Your task to perform on an android device: Open calendar and show me the third week of next month Image 0: 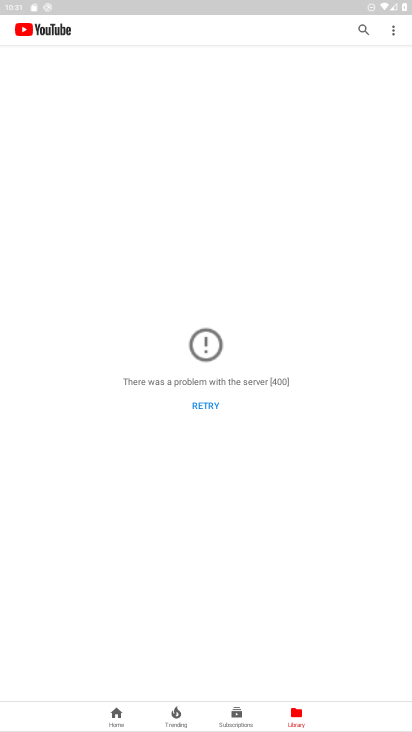
Step 0: press home button
Your task to perform on an android device: Open calendar and show me the third week of next month Image 1: 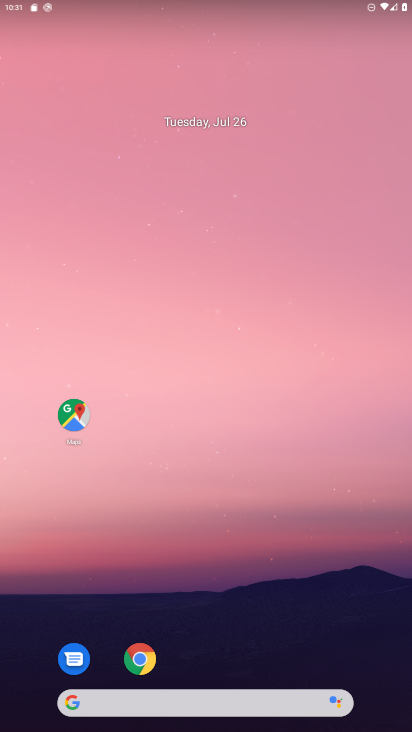
Step 1: drag from (391, 722) to (219, 26)
Your task to perform on an android device: Open calendar and show me the third week of next month Image 2: 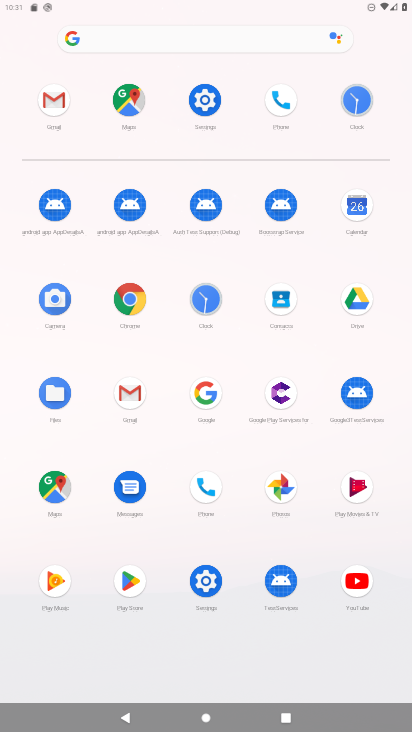
Step 2: click (213, 304)
Your task to perform on an android device: Open calendar and show me the third week of next month Image 3: 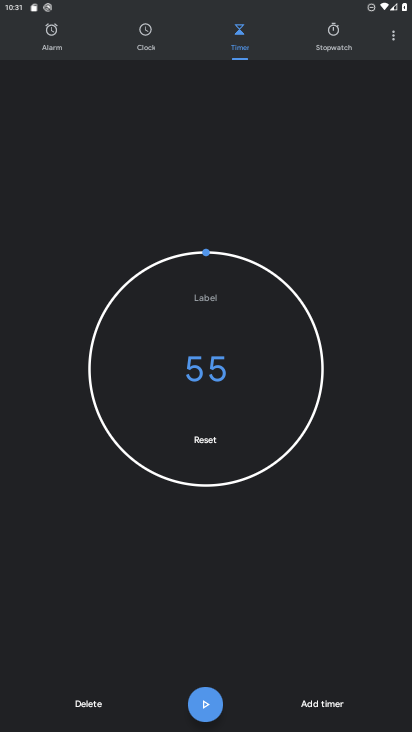
Step 3: press back button
Your task to perform on an android device: Open calendar and show me the third week of next month Image 4: 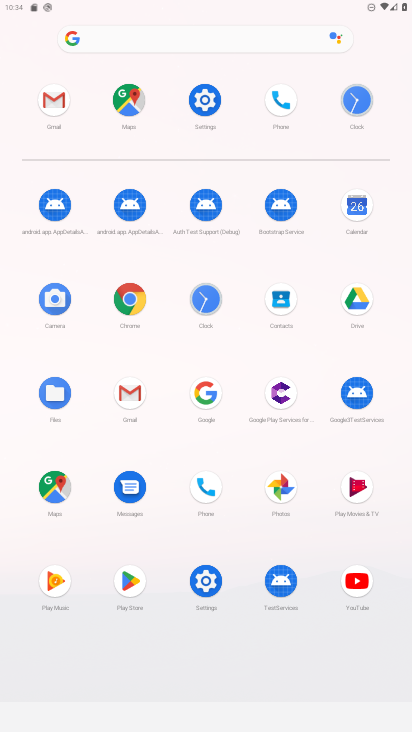
Step 4: click (352, 212)
Your task to perform on an android device: Open calendar and show me the third week of next month Image 5: 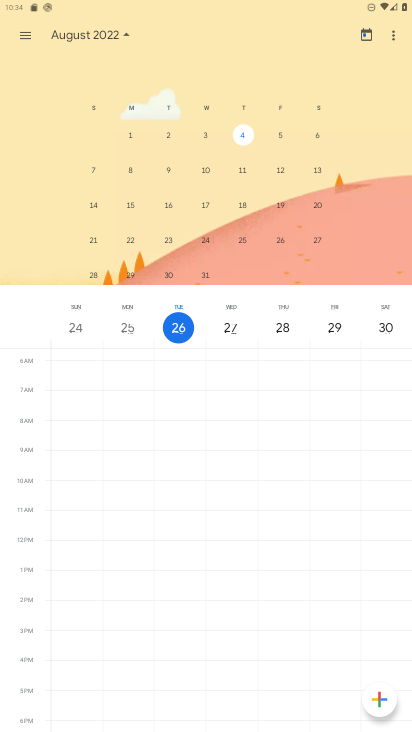
Step 5: click (208, 201)
Your task to perform on an android device: Open calendar and show me the third week of next month Image 6: 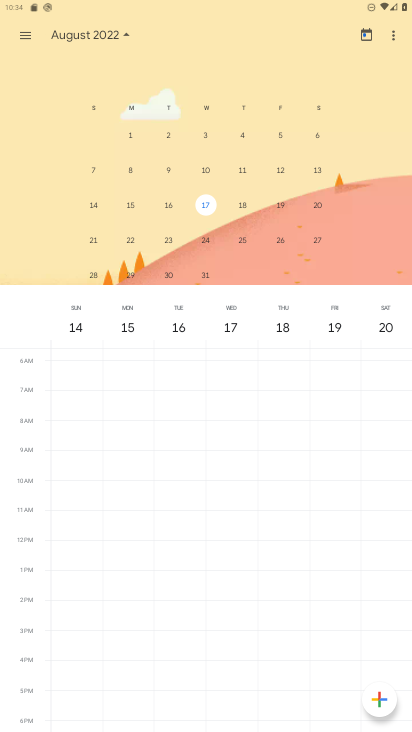
Step 6: click (25, 36)
Your task to perform on an android device: Open calendar and show me the third week of next month Image 7: 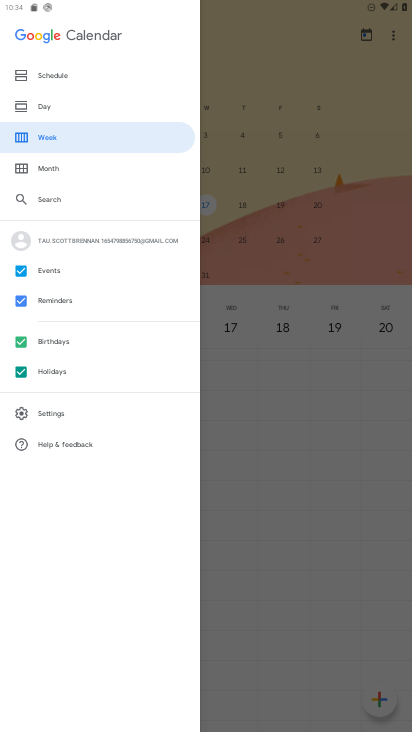
Step 7: click (31, 139)
Your task to perform on an android device: Open calendar and show me the third week of next month Image 8: 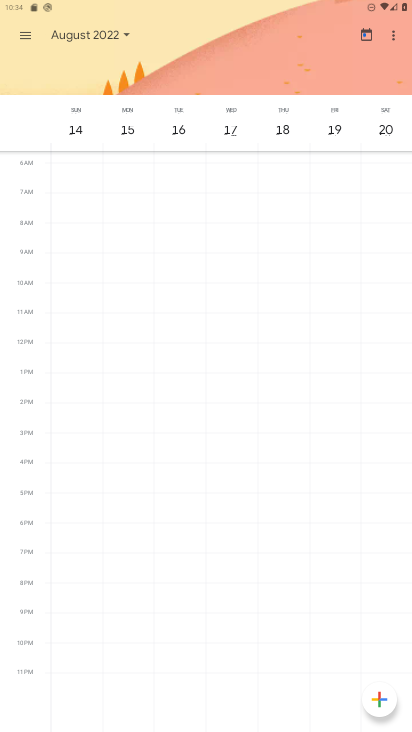
Step 8: task complete